Your task to perform on an android device: check battery use Image 0: 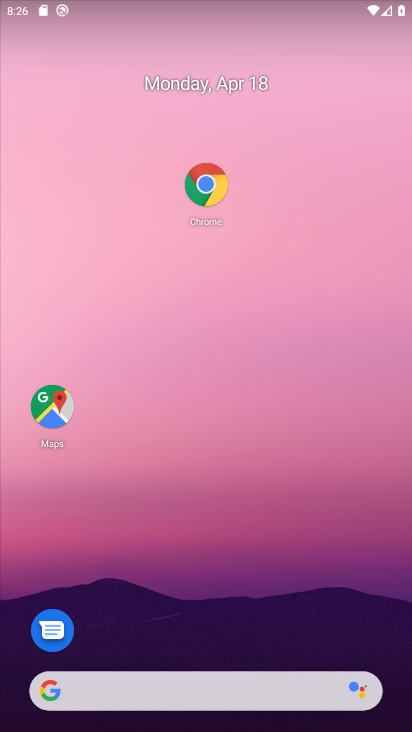
Step 0: drag from (172, 606) to (317, 147)
Your task to perform on an android device: check battery use Image 1: 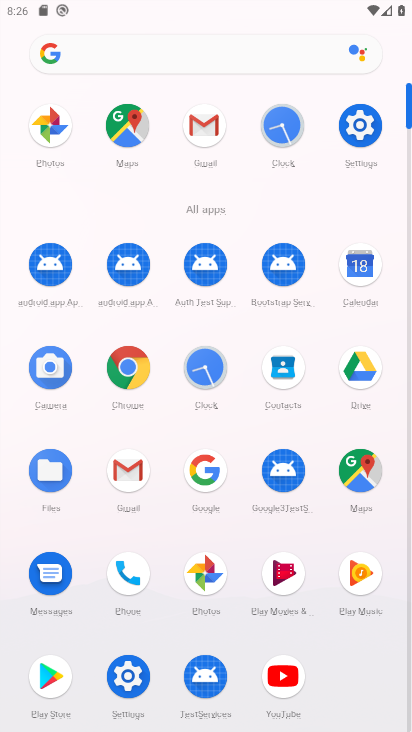
Step 1: click (132, 678)
Your task to perform on an android device: check battery use Image 2: 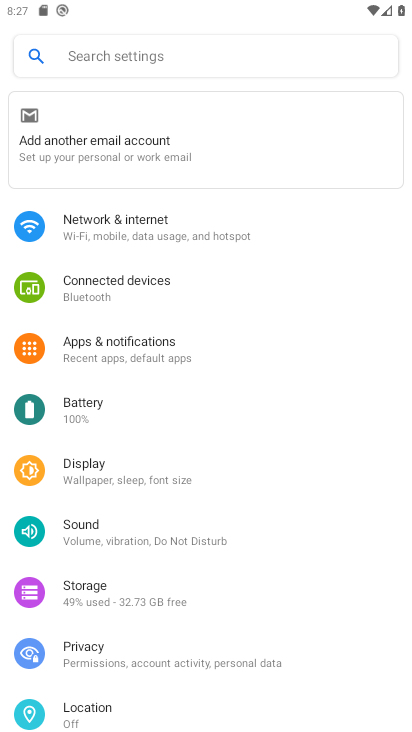
Step 2: click (122, 406)
Your task to perform on an android device: check battery use Image 3: 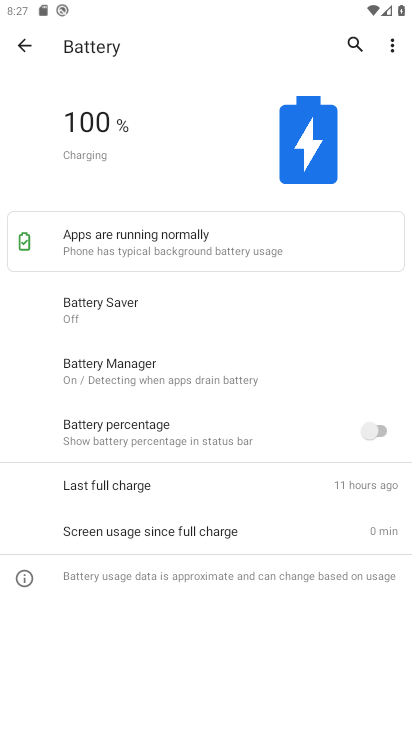
Step 3: click (402, 45)
Your task to perform on an android device: check battery use Image 4: 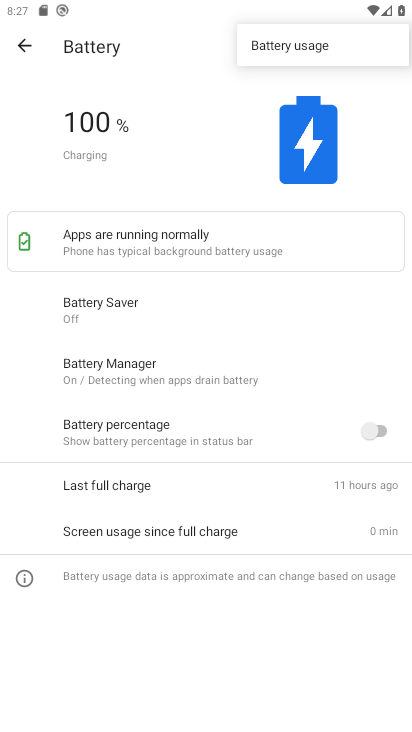
Step 4: click (391, 47)
Your task to perform on an android device: check battery use Image 5: 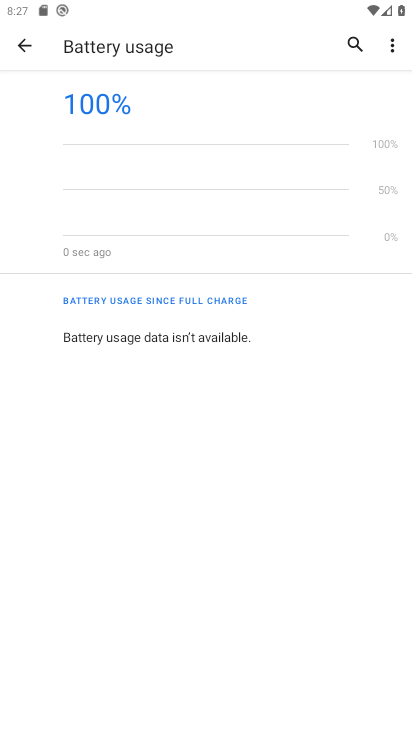
Step 5: task complete